Your task to perform on an android device: Open accessibility settings Image 0: 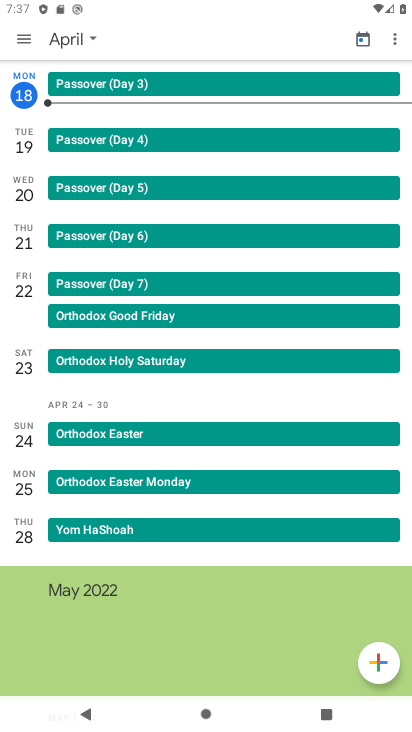
Step 0: press home button
Your task to perform on an android device: Open accessibility settings Image 1: 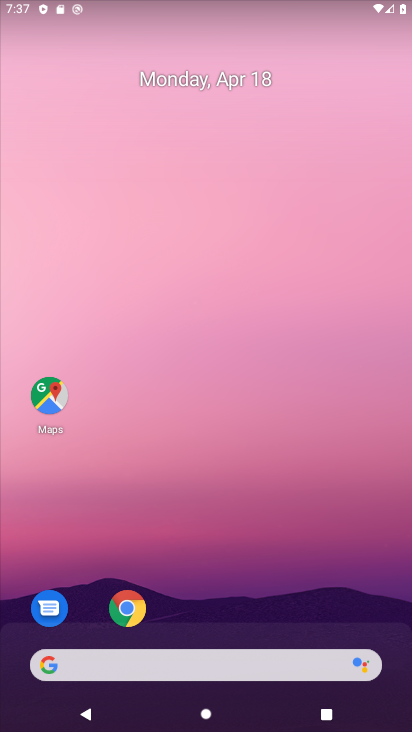
Step 1: drag from (233, 596) to (282, 106)
Your task to perform on an android device: Open accessibility settings Image 2: 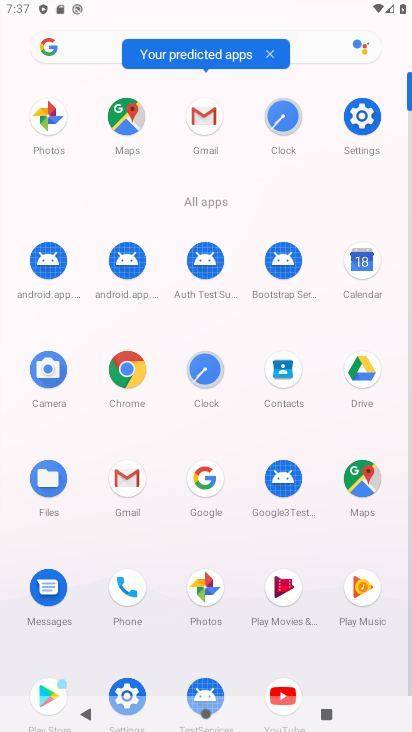
Step 2: click (371, 122)
Your task to perform on an android device: Open accessibility settings Image 3: 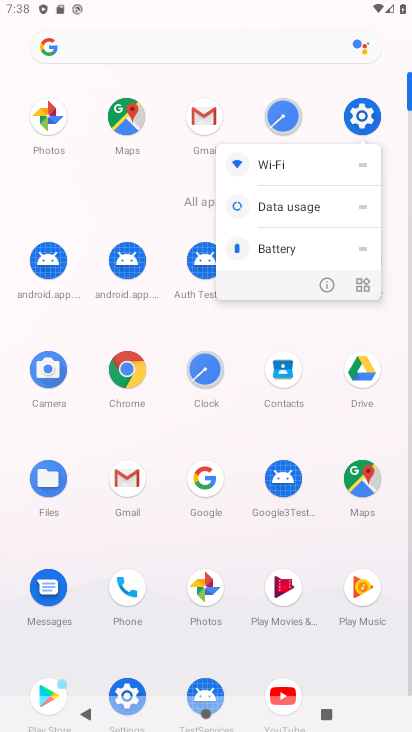
Step 3: click (359, 112)
Your task to perform on an android device: Open accessibility settings Image 4: 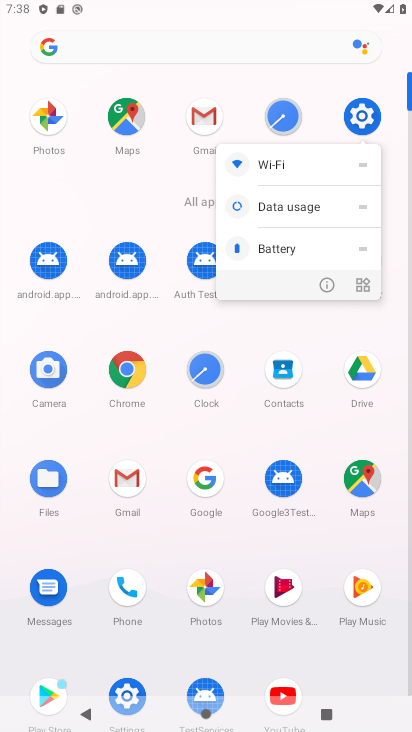
Step 4: click (364, 117)
Your task to perform on an android device: Open accessibility settings Image 5: 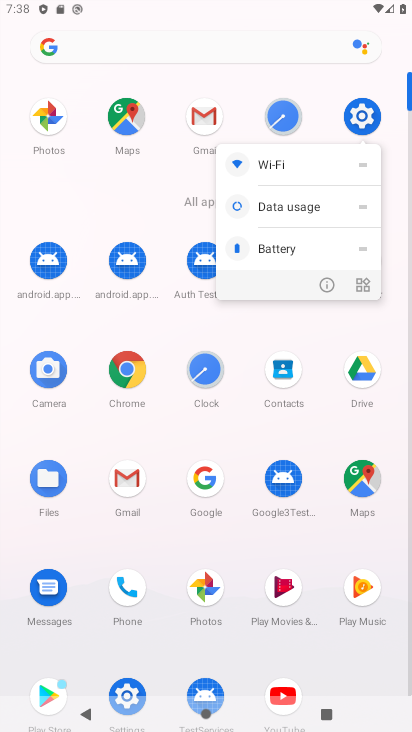
Step 5: click (364, 117)
Your task to perform on an android device: Open accessibility settings Image 6: 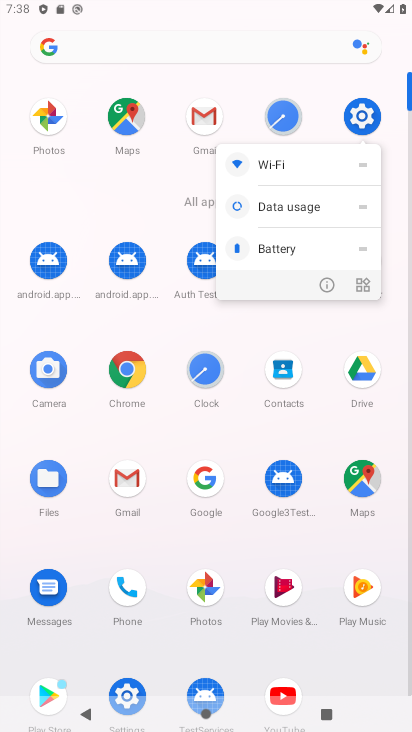
Step 6: click (361, 121)
Your task to perform on an android device: Open accessibility settings Image 7: 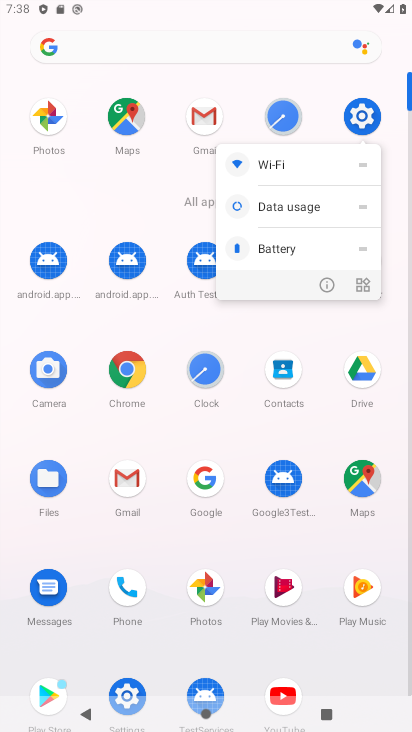
Step 7: click (364, 113)
Your task to perform on an android device: Open accessibility settings Image 8: 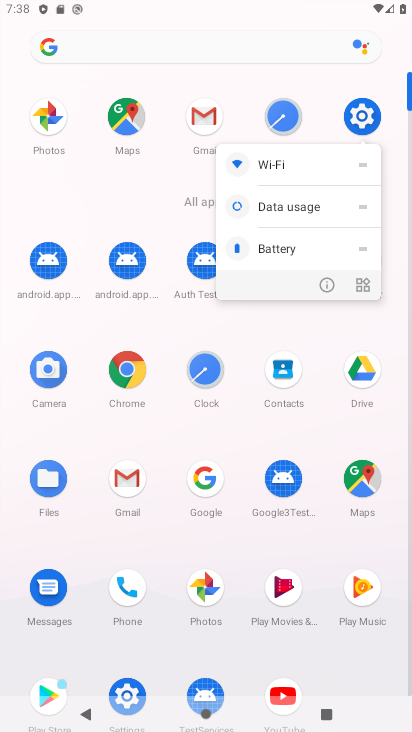
Step 8: click (358, 114)
Your task to perform on an android device: Open accessibility settings Image 9: 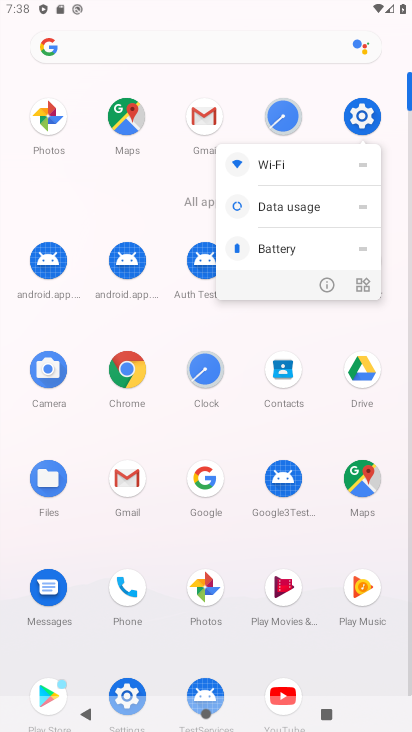
Step 9: click (358, 113)
Your task to perform on an android device: Open accessibility settings Image 10: 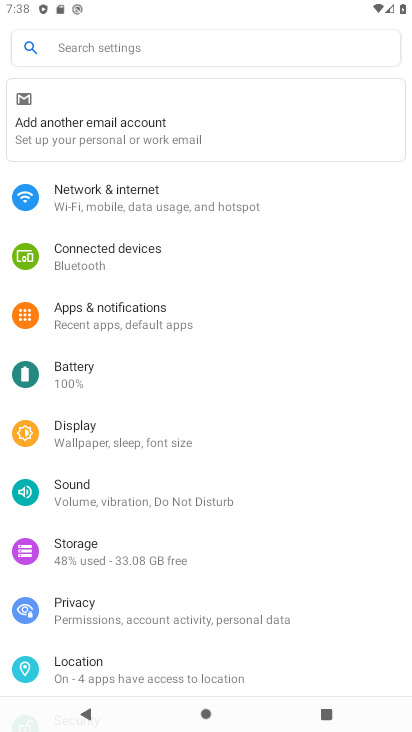
Step 10: drag from (232, 394) to (294, 270)
Your task to perform on an android device: Open accessibility settings Image 11: 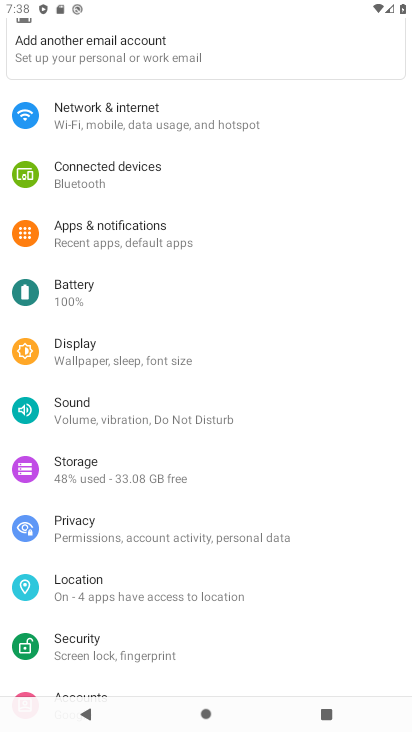
Step 11: drag from (229, 413) to (288, 320)
Your task to perform on an android device: Open accessibility settings Image 12: 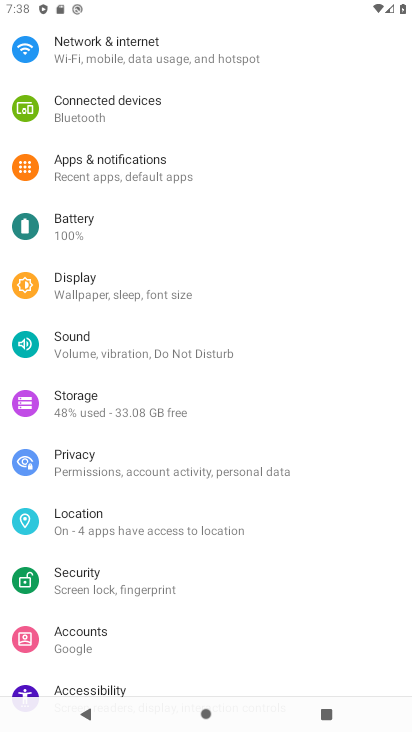
Step 12: drag from (191, 541) to (260, 426)
Your task to perform on an android device: Open accessibility settings Image 13: 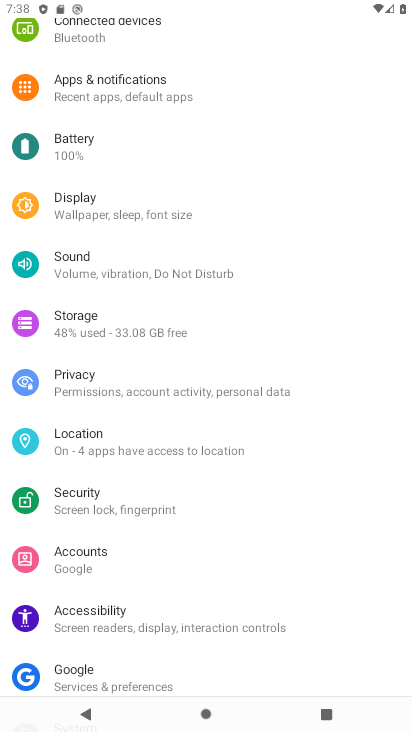
Step 13: click (93, 614)
Your task to perform on an android device: Open accessibility settings Image 14: 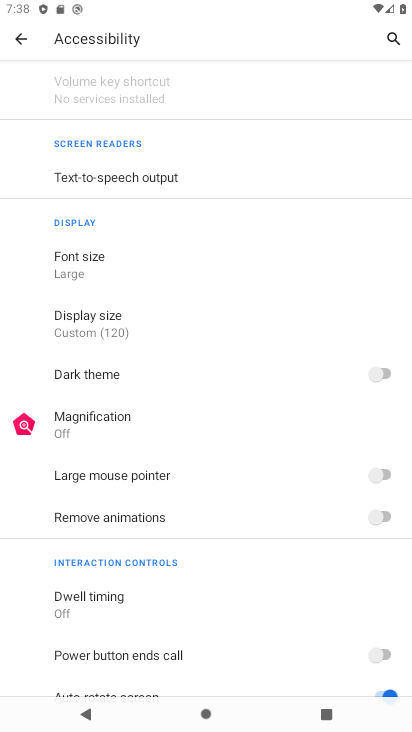
Step 14: task complete